Your task to perform on an android device: show emergency info Image 0: 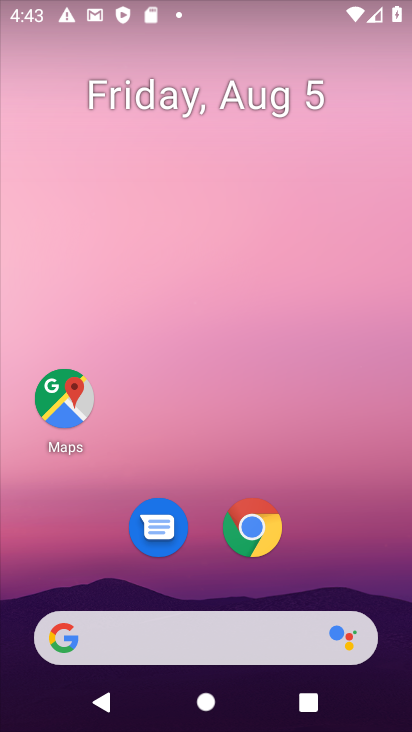
Step 0: click (171, 99)
Your task to perform on an android device: show emergency info Image 1: 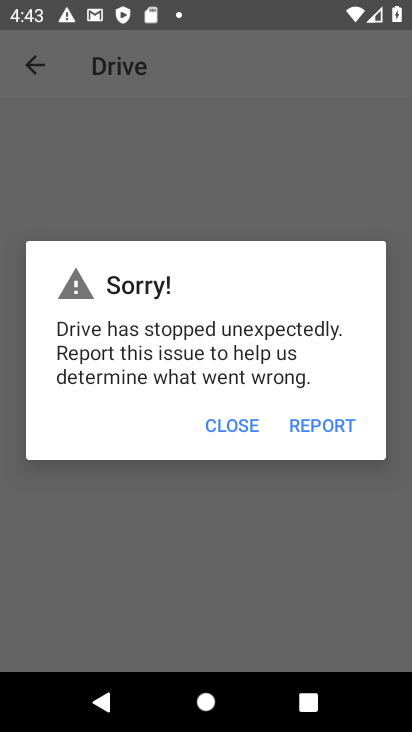
Step 1: drag from (230, 490) to (227, 250)
Your task to perform on an android device: show emergency info Image 2: 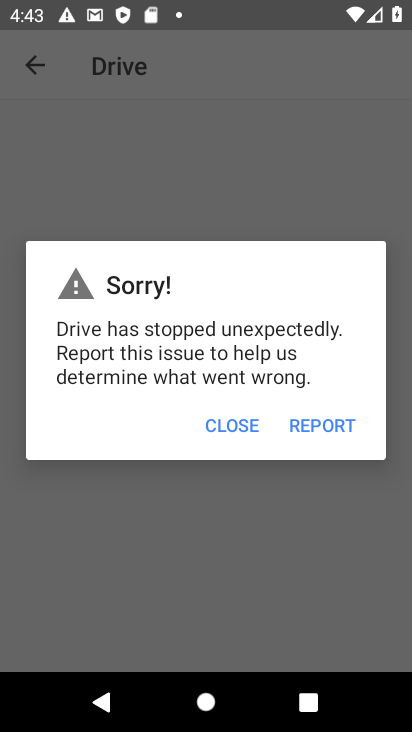
Step 2: press home button
Your task to perform on an android device: show emergency info Image 3: 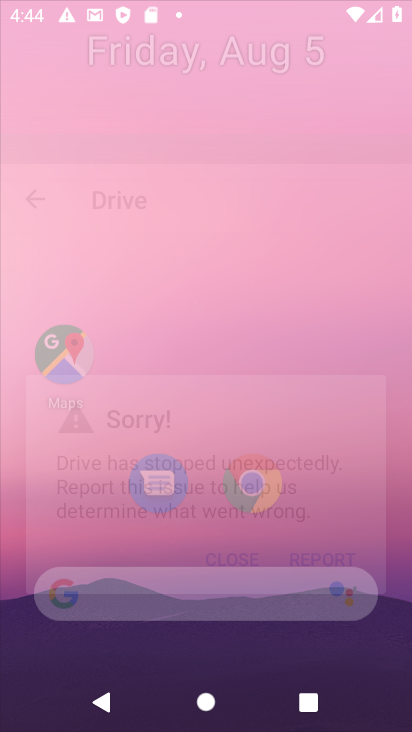
Step 3: drag from (182, 294) to (196, 146)
Your task to perform on an android device: show emergency info Image 4: 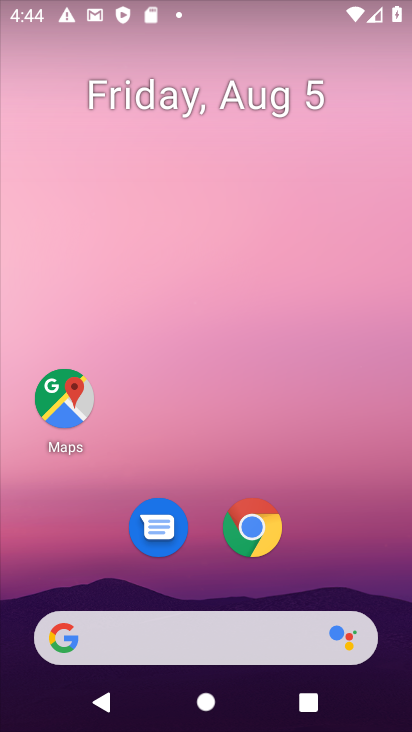
Step 4: drag from (187, 599) to (235, 87)
Your task to perform on an android device: show emergency info Image 5: 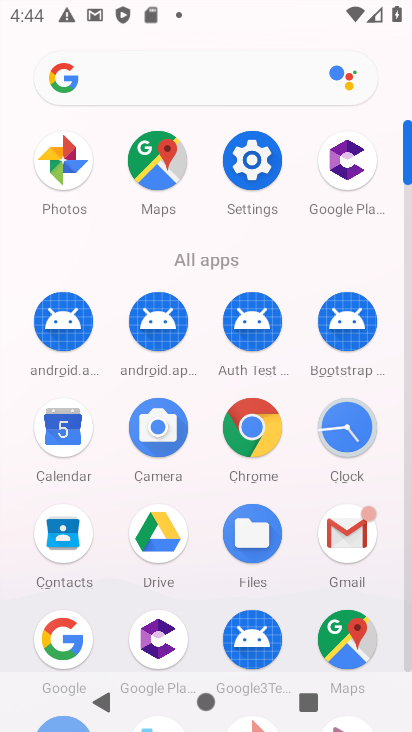
Step 5: click (254, 160)
Your task to perform on an android device: show emergency info Image 6: 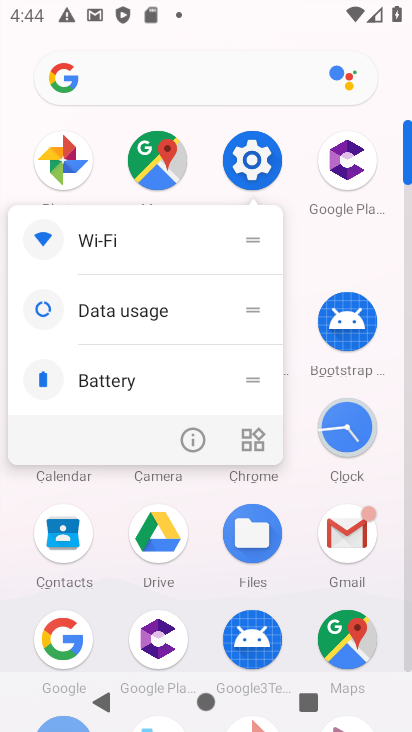
Step 6: click (196, 439)
Your task to perform on an android device: show emergency info Image 7: 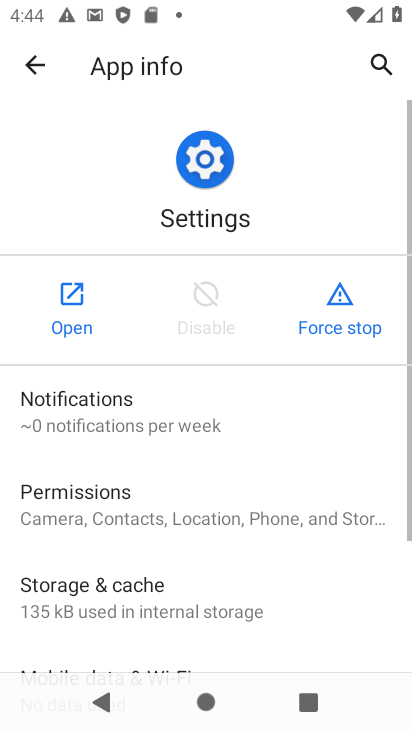
Step 7: click (44, 317)
Your task to perform on an android device: show emergency info Image 8: 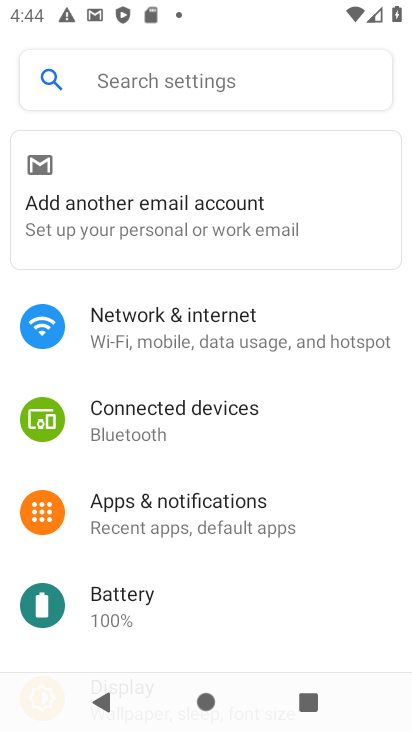
Step 8: drag from (195, 614) to (219, 156)
Your task to perform on an android device: show emergency info Image 9: 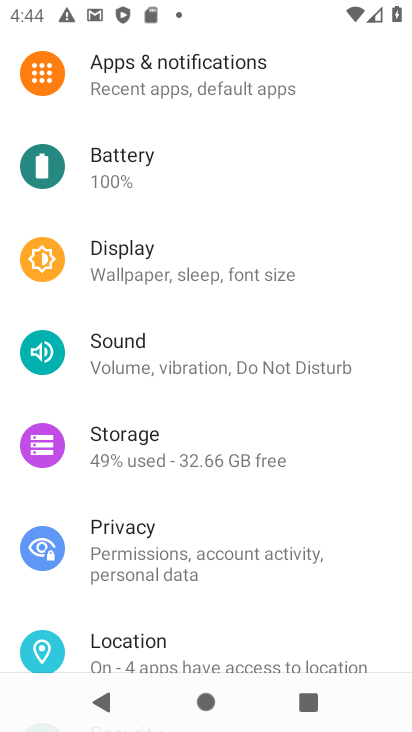
Step 9: drag from (164, 606) to (196, 160)
Your task to perform on an android device: show emergency info Image 10: 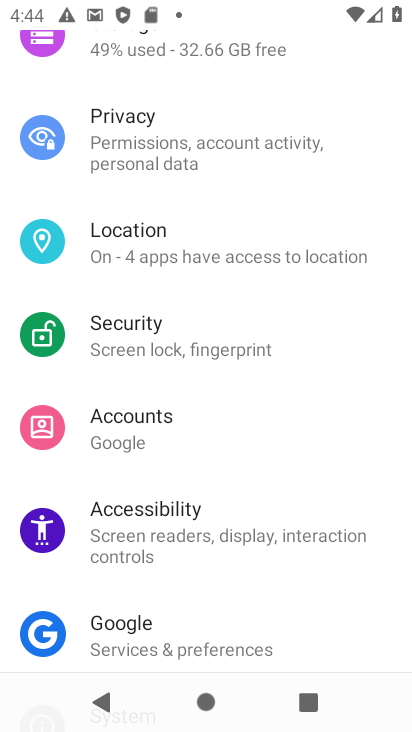
Step 10: drag from (202, 607) to (221, 226)
Your task to perform on an android device: show emergency info Image 11: 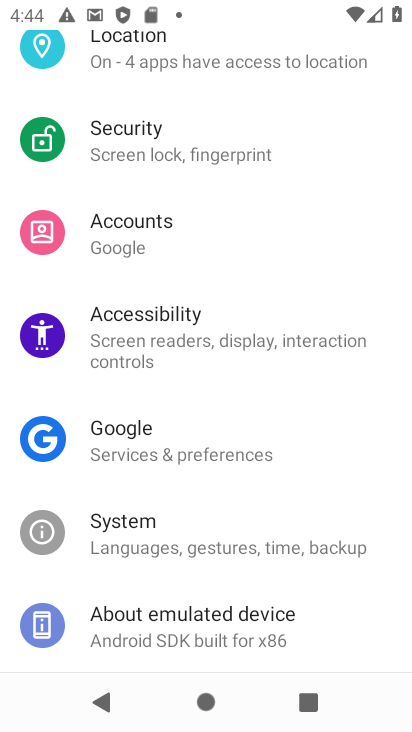
Step 11: click (154, 595)
Your task to perform on an android device: show emergency info Image 12: 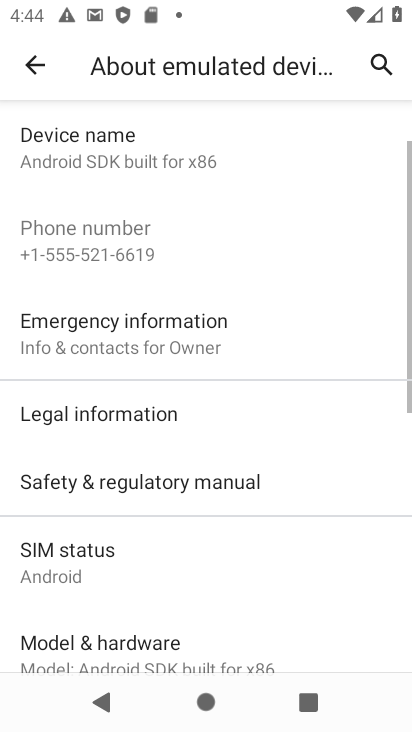
Step 12: click (157, 332)
Your task to perform on an android device: show emergency info Image 13: 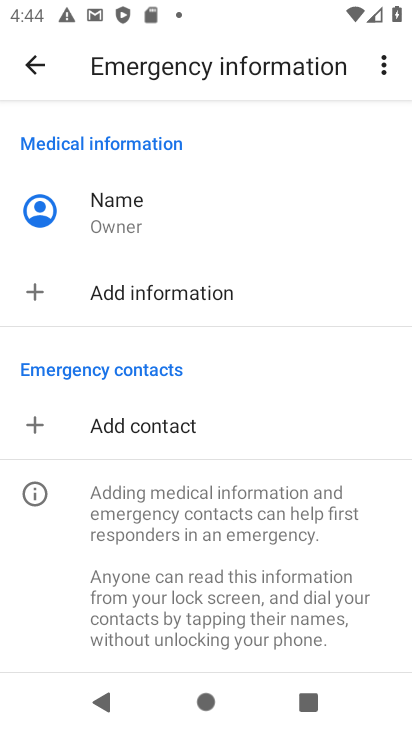
Step 13: task complete